Your task to perform on an android device: check out phone information Image 0: 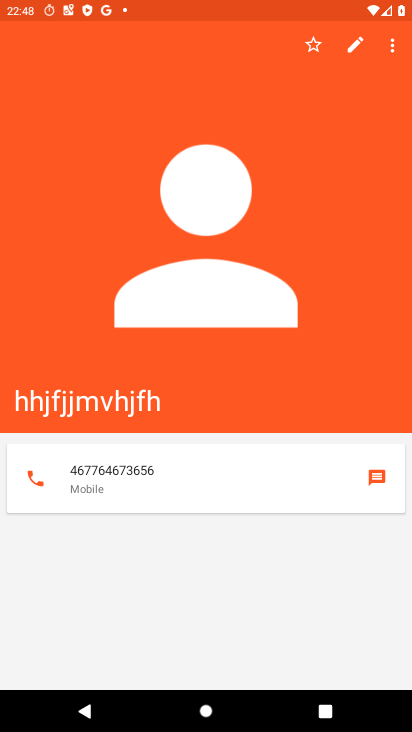
Step 0: press home button
Your task to perform on an android device: check out phone information Image 1: 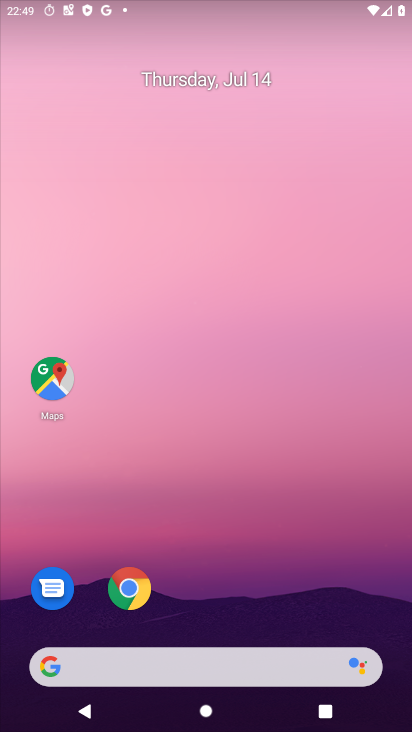
Step 1: drag from (193, 621) to (217, 138)
Your task to perform on an android device: check out phone information Image 2: 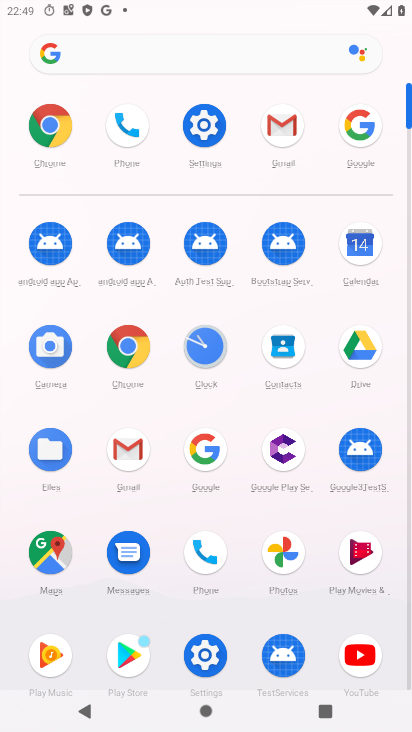
Step 2: click (206, 126)
Your task to perform on an android device: check out phone information Image 3: 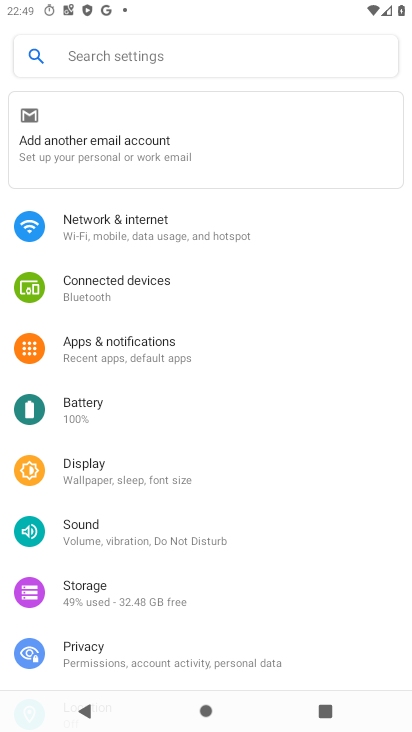
Step 3: drag from (216, 573) to (192, 174)
Your task to perform on an android device: check out phone information Image 4: 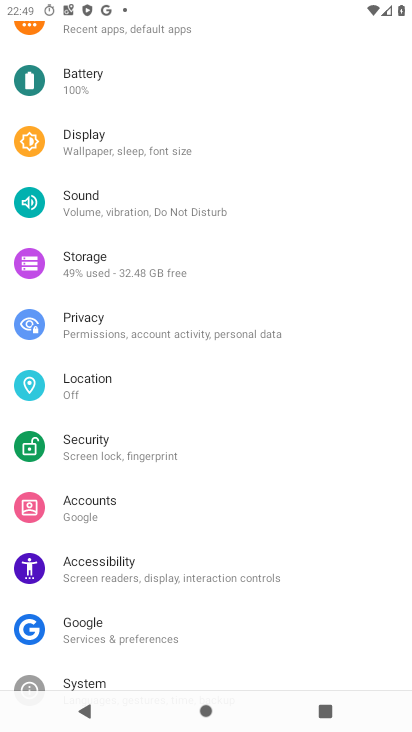
Step 4: drag from (213, 632) to (199, 126)
Your task to perform on an android device: check out phone information Image 5: 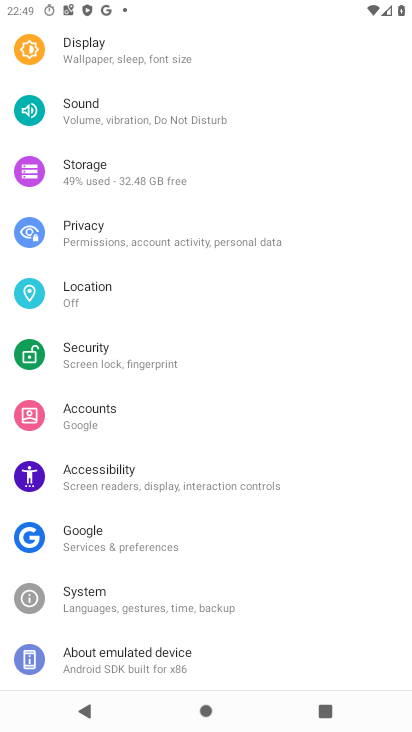
Step 5: click (171, 662)
Your task to perform on an android device: check out phone information Image 6: 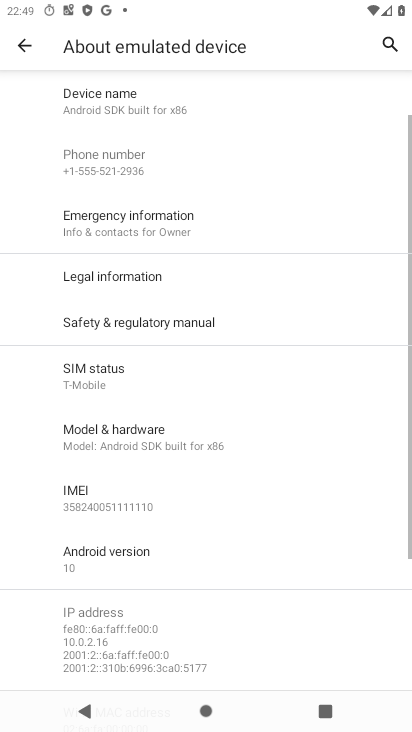
Step 6: task complete